Your task to perform on an android device: Open Google Chrome Image 0: 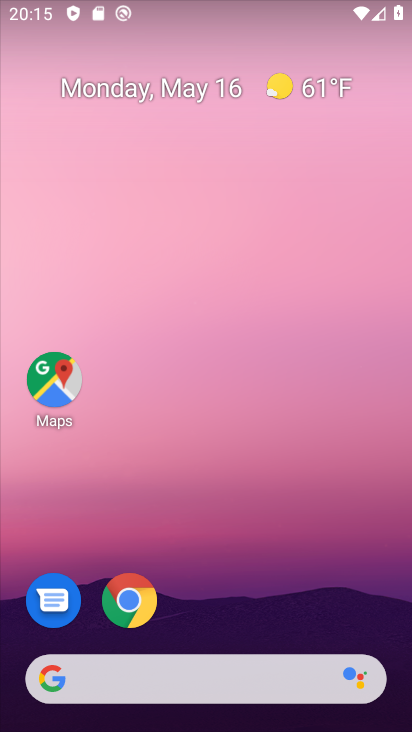
Step 0: click (140, 598)
Your task to perform on an android device: Open Google Chrome Image 1: 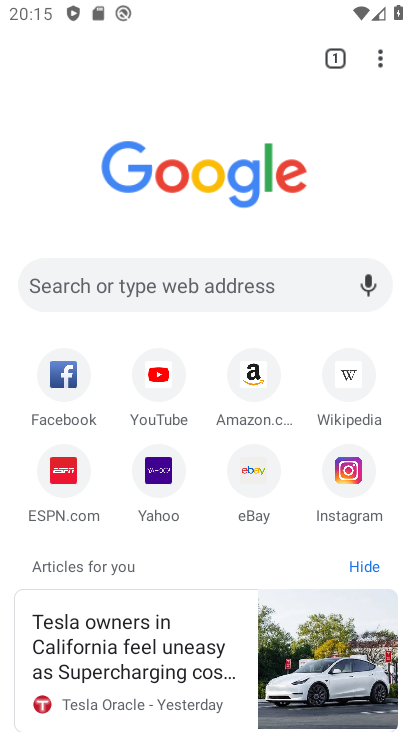
Step 1: task complete